Your task to perform on an android device: change the clock display to digital Image 0: 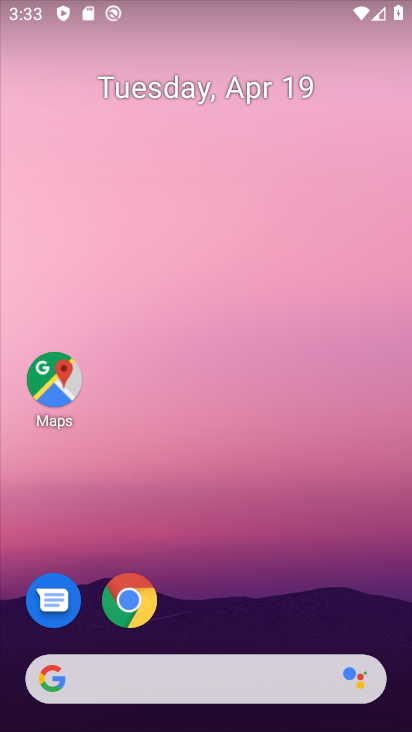
Step 0: drag from (189, 575) to (219, 15)
Your task to perform on an android device: change the clock display to digital Image 1: 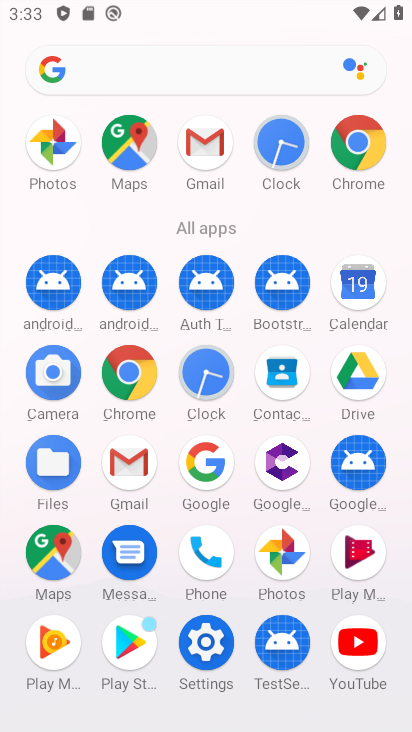
Step 1: click (211, 418)
Your task to perform on an android device: change the clock display to digital Image 2: 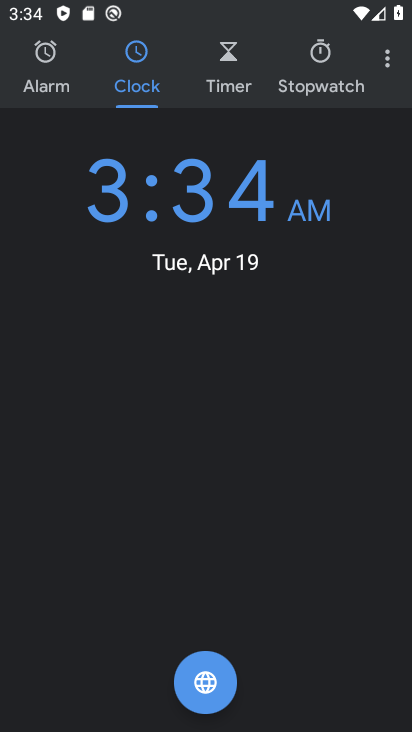
Step 2: click (390, 66)
Your task to perform on an android device: change the clock display to digital Image 3: 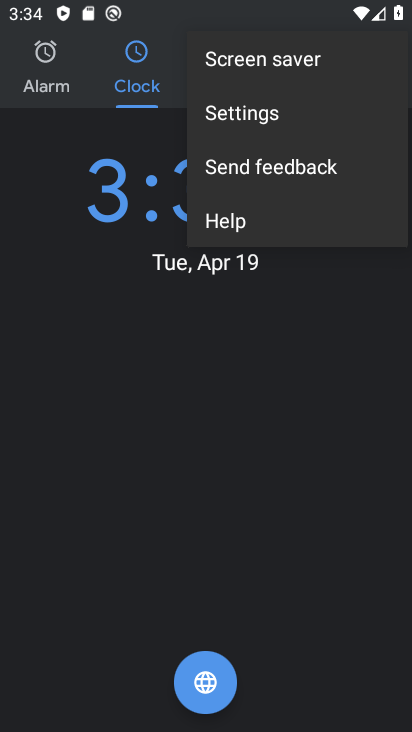
Step 3: click (275, 110)
Your task to perform on an android device: change the clock display to digital Image 4: 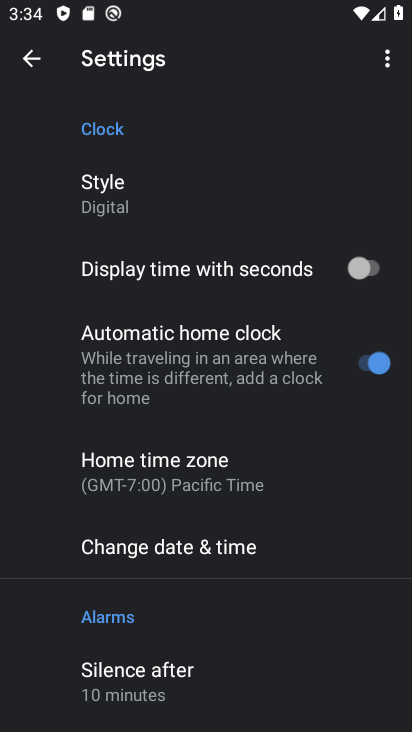
Step 4: click (126, 184)
Your task to perform on an android device: change the clock display to digital Image 5: 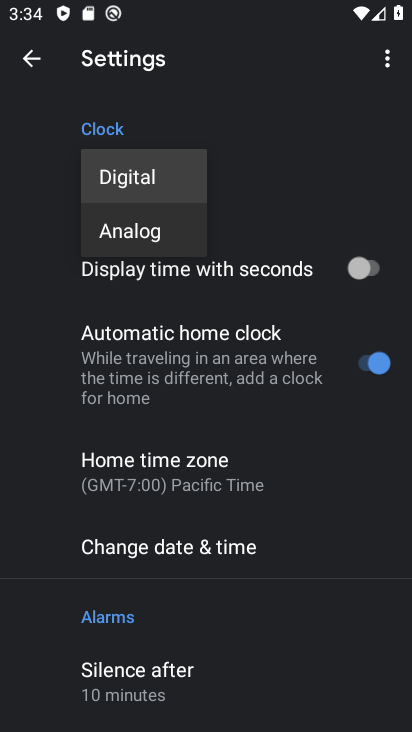
Step 5: task complete